Your task to perform on an android device: turn pop-ups off in chrome Image 0: 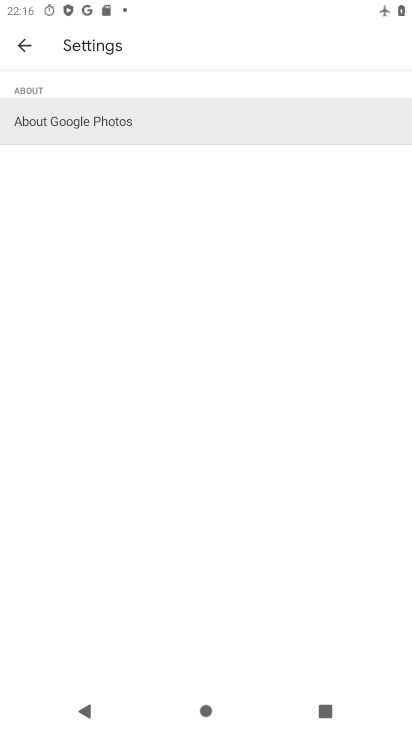
Step 0: press home button
Your task to perform on an android device: turn pop-ups off in chrome Image 1: 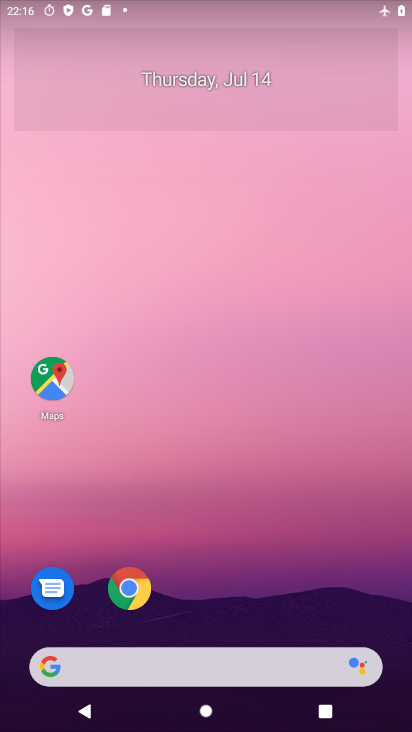
Step 1: click (132, 583)
Your task to perform on an android device: turn pop-ups off in chrome Image 2: 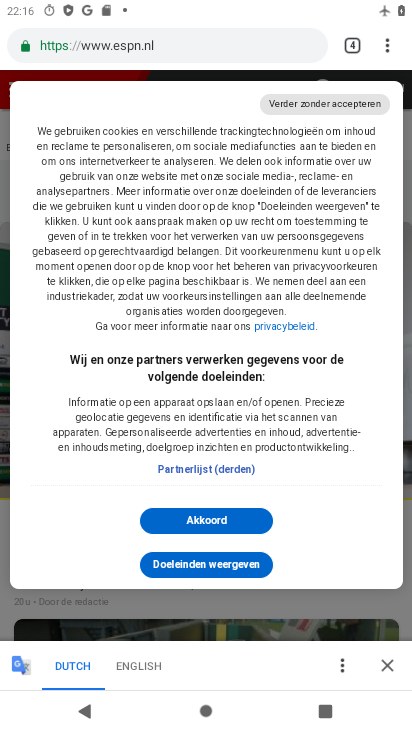
Step 2: click (383, 45)
Your task to perform on an android device: turn pop-ups off in chrome Image 3: 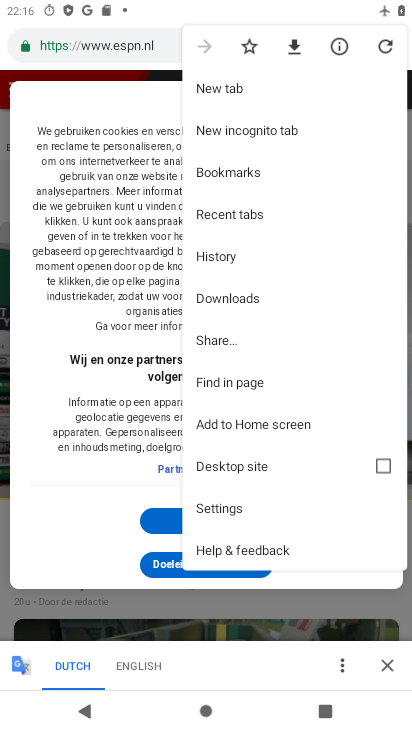
Step 3: click (226, 512)
Your task to perform on an android device: turn pop-ups off in chrome Image 4: 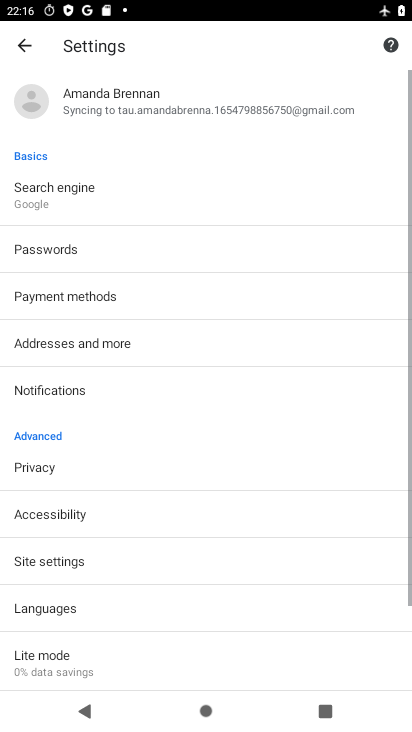
Step 4: click (77, 558)
Your task to perform on an android device: turn pop-ups off in chrome Image 5: 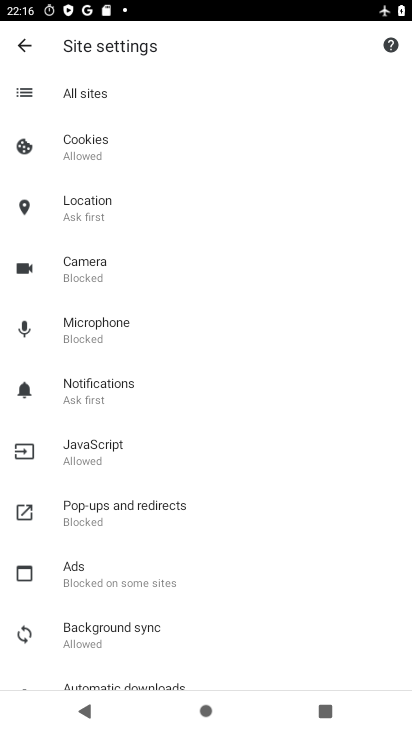
Step 5: drag from (121, 589) to (138, 260)
Your task to perform on an android device: turn pop-ups off in chrome Image 6: 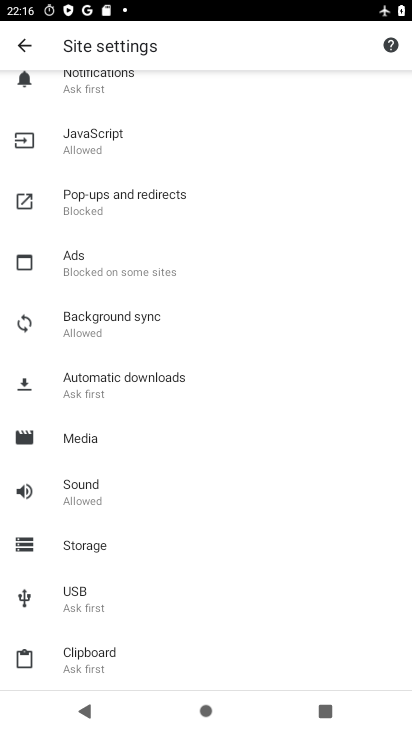
Step 6: click (140, 199)
Your task to perform on an android device: turn pop-ups off in chrome Image 7: 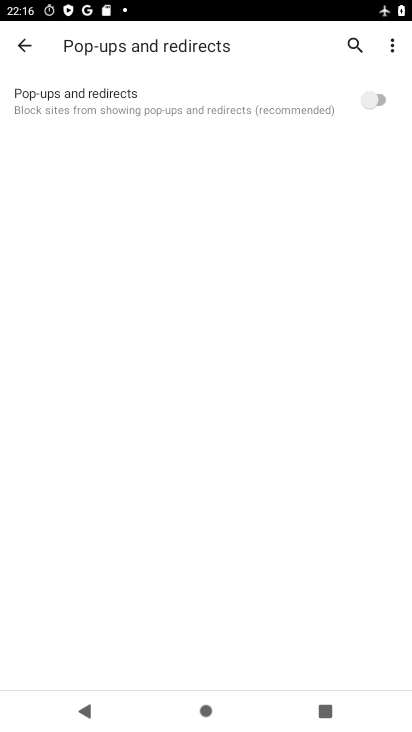
Step 7: task complete